Your task to perform on an android device: clear history in the chrome app Image 0: 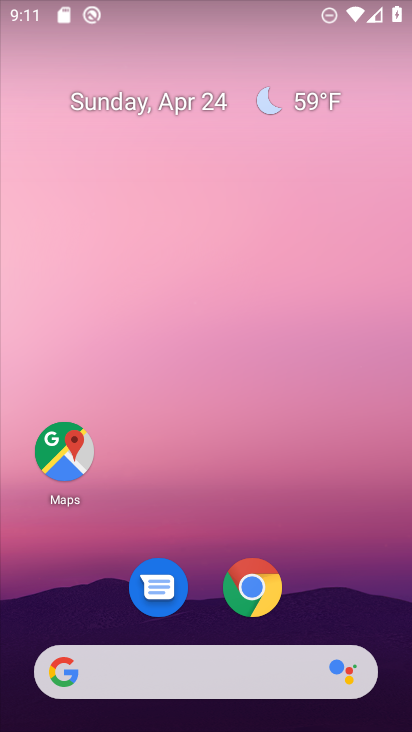
Step 0: click (250, 587)
Your task to perform on an android device: clear history in the chrome app Image 1: 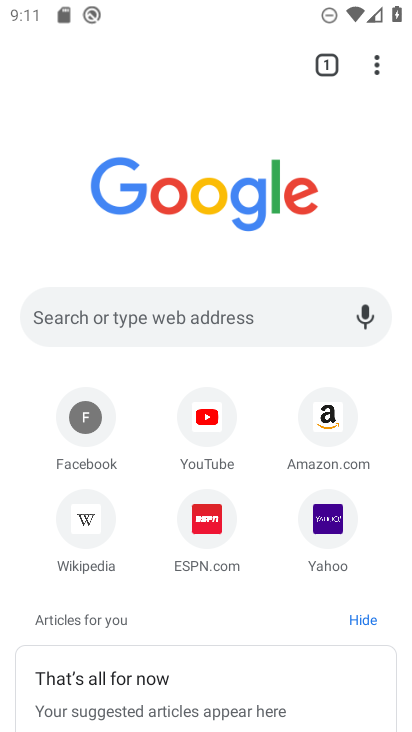
Step 1: click (376, 64)
Your task to perform on an android device: clear history in the chrome app Image 2: 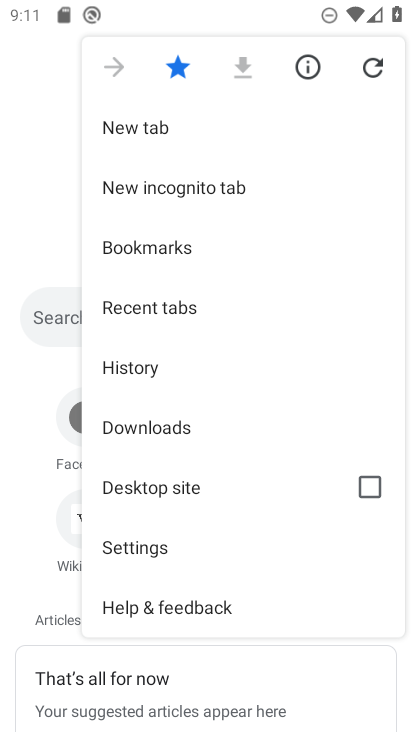
Step 2: click (144, 368)
Your task to perform on an android device: clear history in the chrome app Image 3: 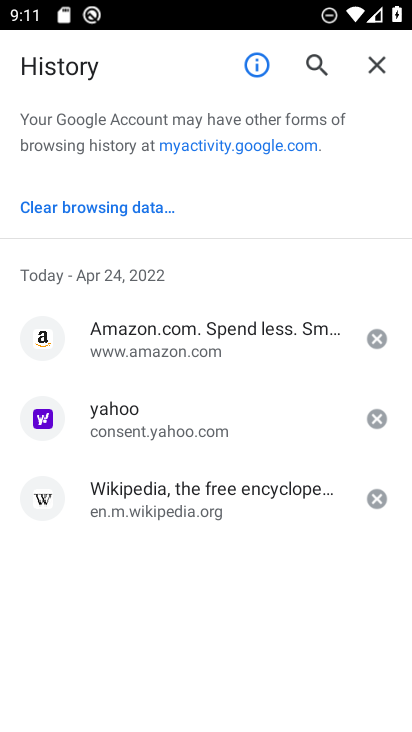
Step 3: click (95, 208)
Your task to perform on an android device: clear history in the chrome app Image 4: 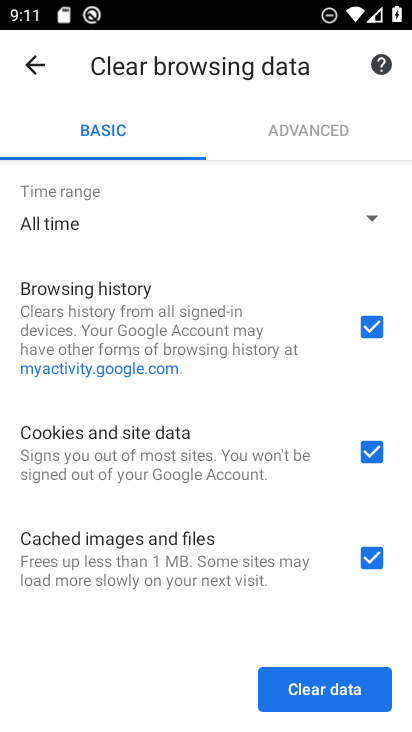
Step 4: click (307, 678)
Your task to perform on an android device: clear history in the chrome app Image 5: 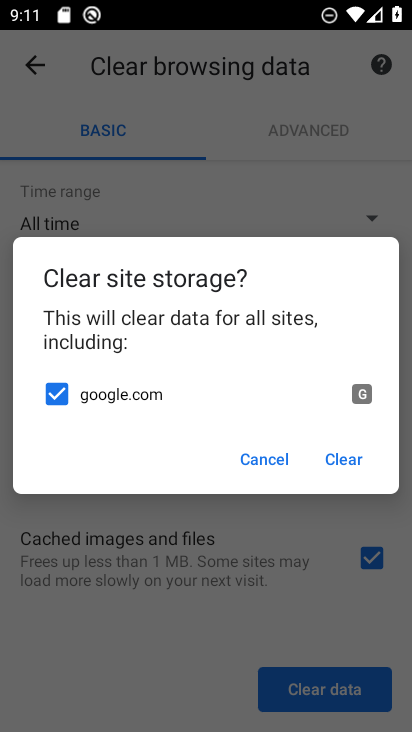
Step 5: click (334, 458)
Your task to perform on an android device: clear history in the chrome app Image 6: 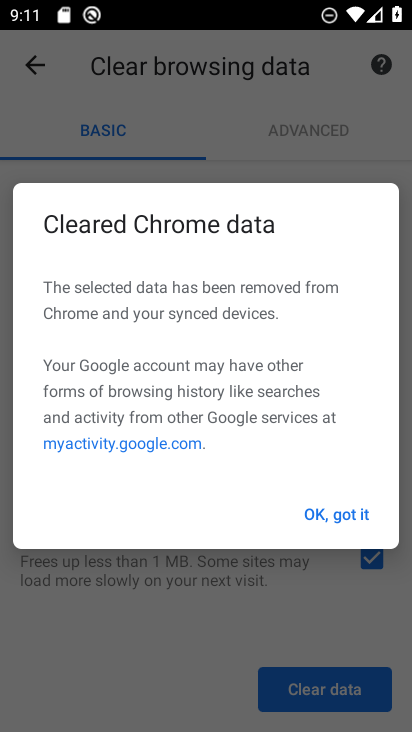
Step 6: click (335, 521)
Your task to perform on an android device: clear history in the chrome app Image 7: 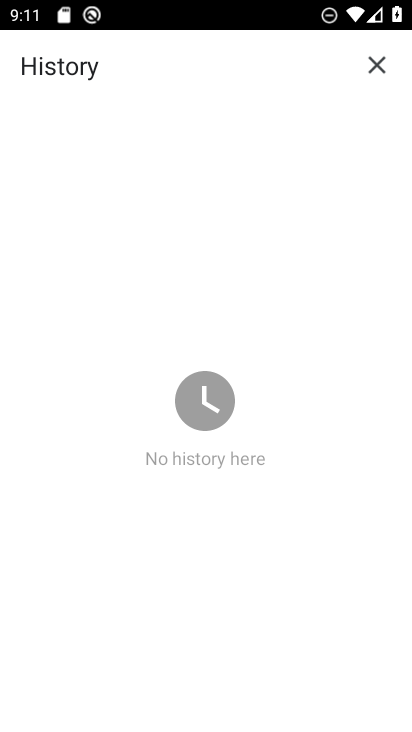
Step 7: task complete